Your task to perform on an android device: What's the weather going to be tomorrow? Image 0: 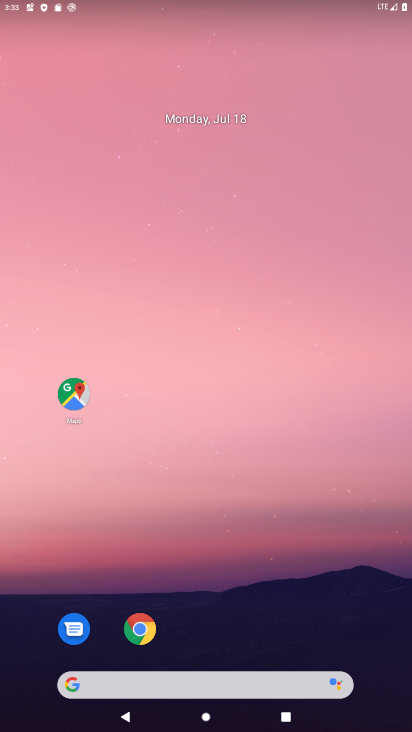
Step 0: drag from (194, 627) to (227, 213)
Your task to perform on an android device: What's the weather going to be tomorrow? Image 1: 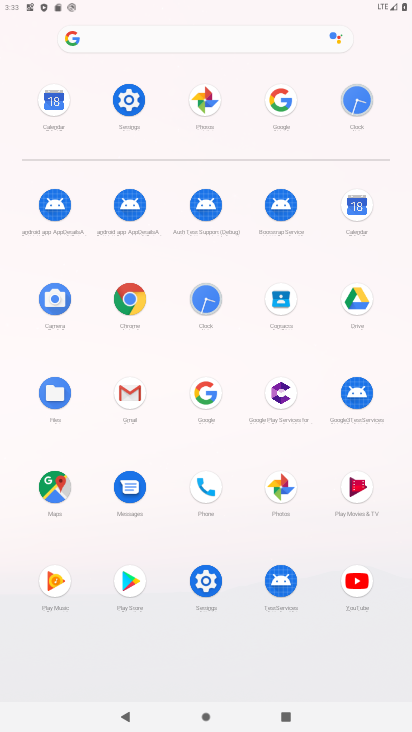
Step 1: click (208, 390)
Your task to perform on an android device: What's the weather going to be tomorrow? Image 2: 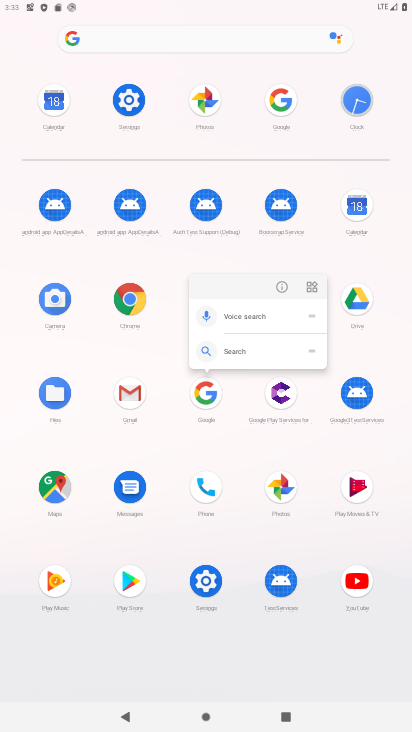
Step 2: click (201, 406)
Your task to perform on an android device: What's the weather going to be tomorrow? Image 3: 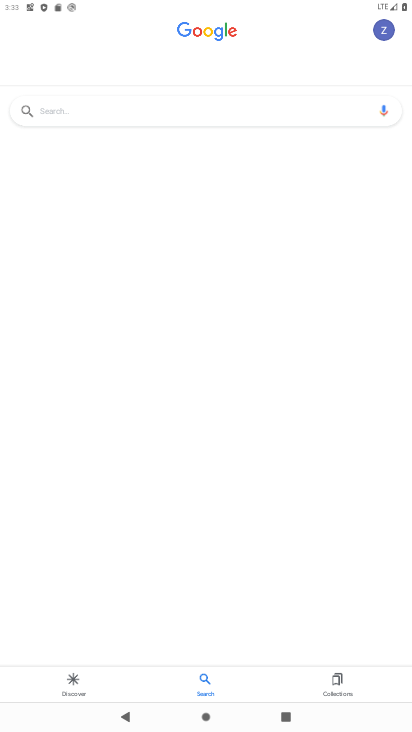
Step 3: click (127, 103)
Your task to perform on an android device: What's the weather going to be tomorrow? Image 4: 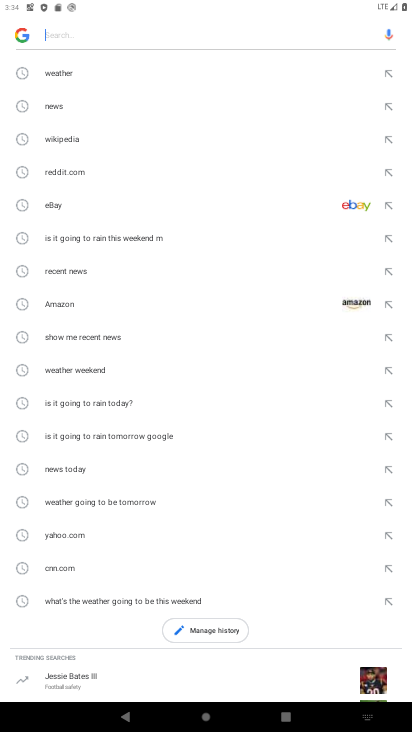
Step 4: click (63, 78)
Your task to perform on an android device: What's the weather going to be tomorrow? Image 5: 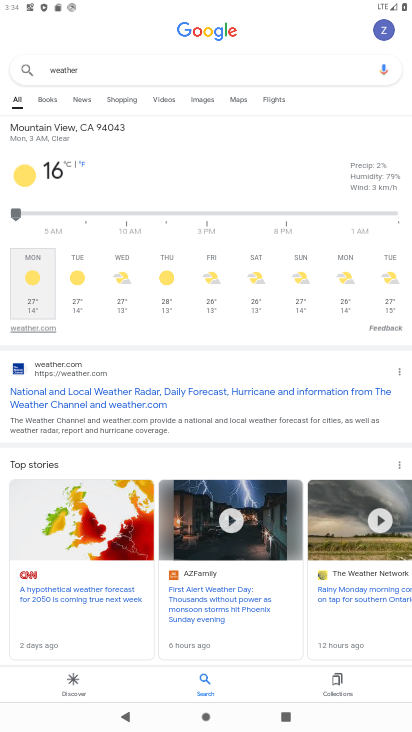
Step 5: task complete